Your task to perform on an android device: Open settings Image 0: 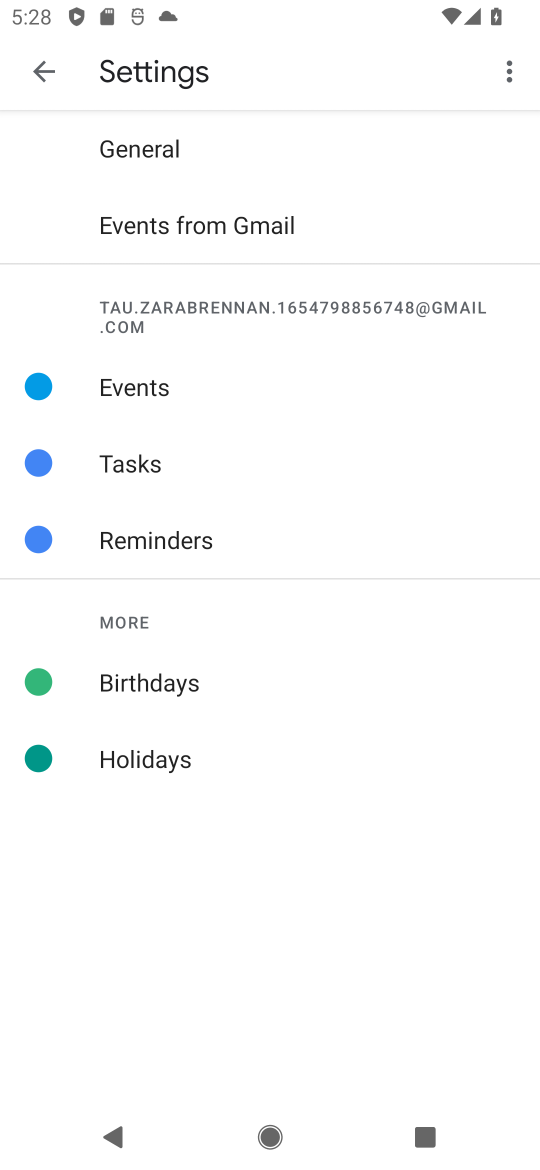
Step 0: press home button
Your task to perform on an android device: Open settings Image 1: 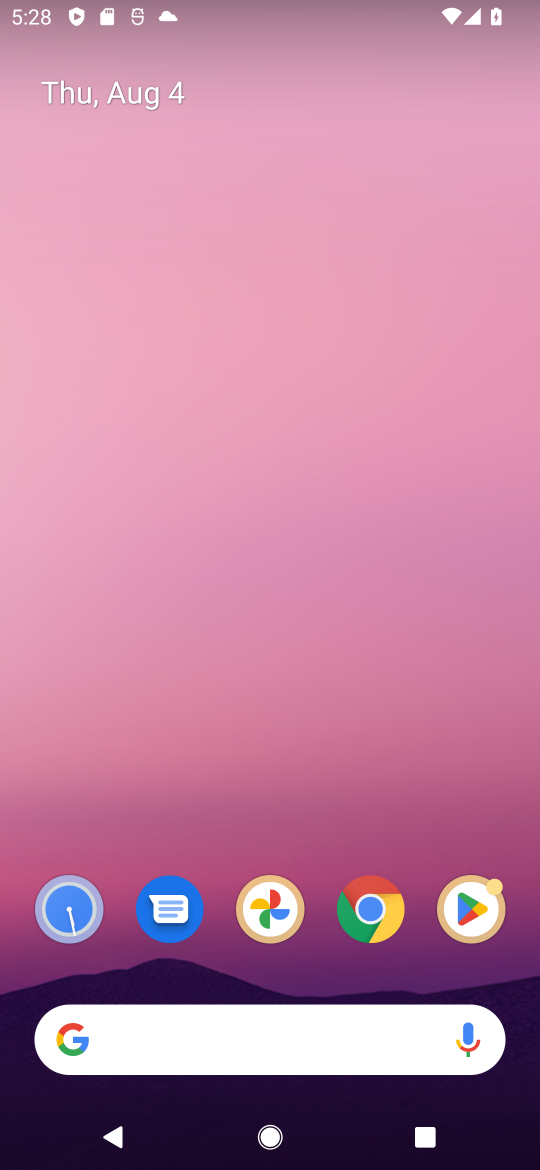
Step 1: drag from (249, 1049) to (402, 353)
Your task to perform on an android device: Open settings Image 2: 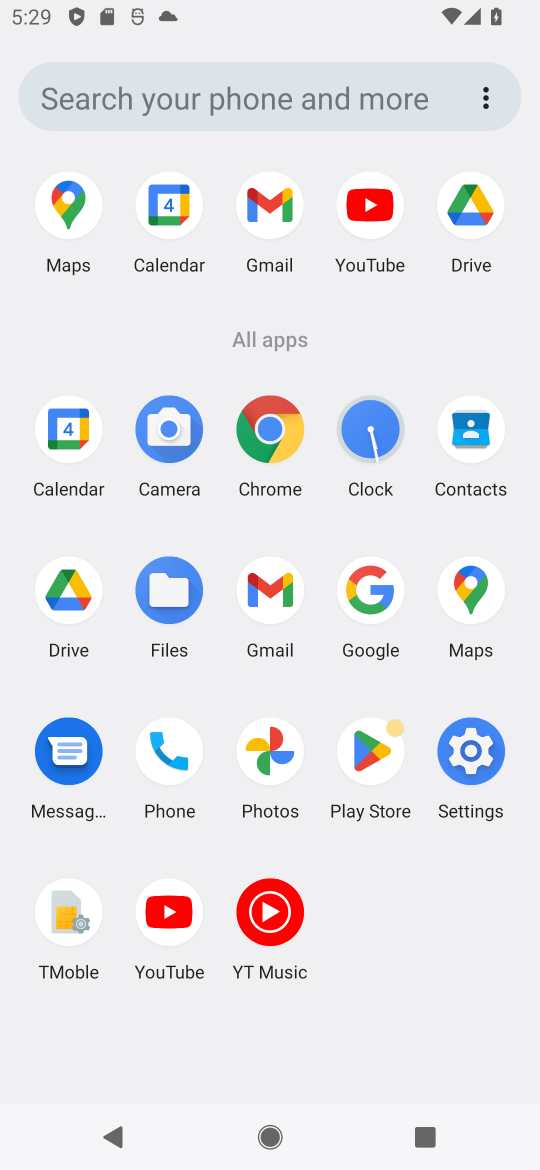
Step 2: click (472, 754)
Your task to perform on an android device: Open settings Image 3: 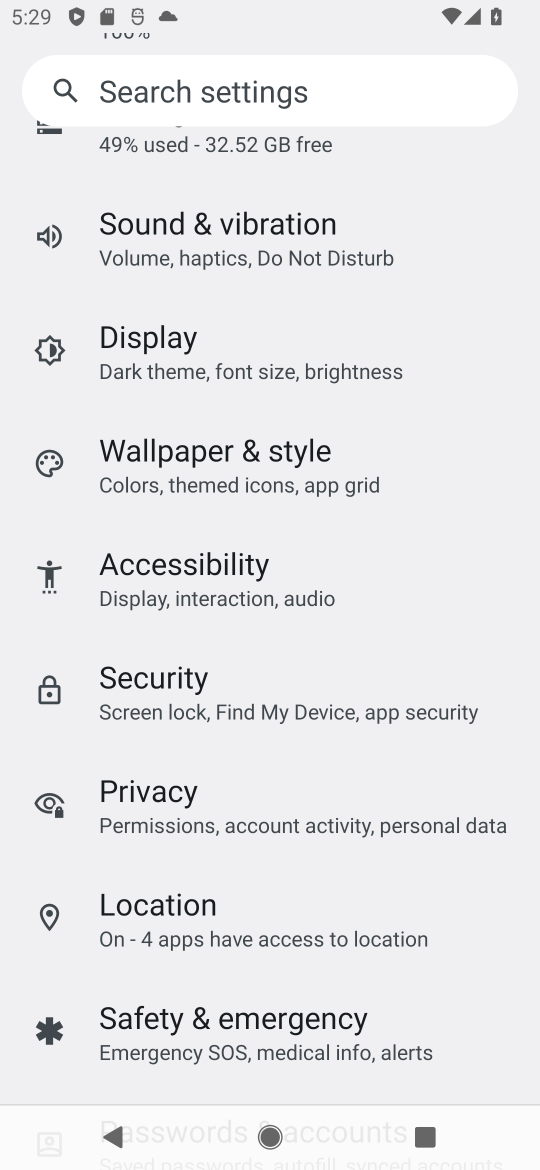
Step 3: task complete